Your task to perform on an android device: change your default location settings in chrome Image 0: 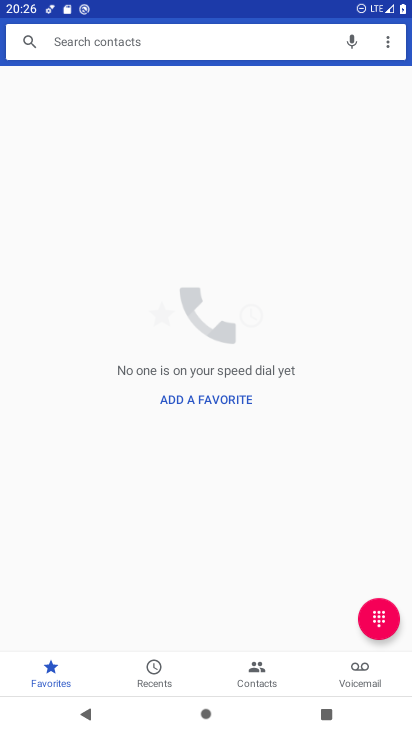
Step 0: press home button
Your task to perform on an android device: change your default location settings in chrome Image 1: 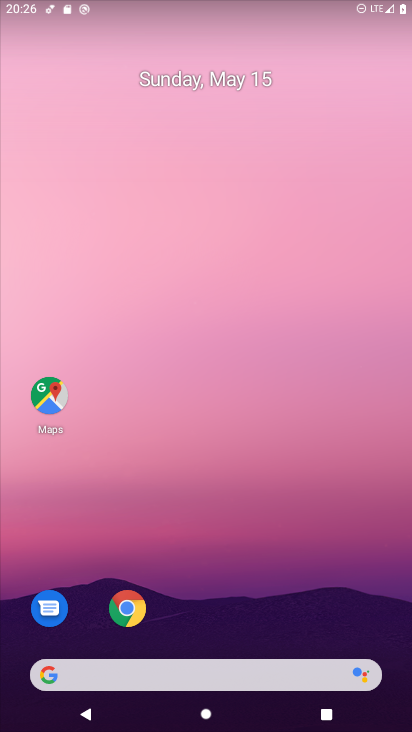
Step 1: click (134, 606)
Your task to perform on an android device: change your default location settings in chrome Image 2: 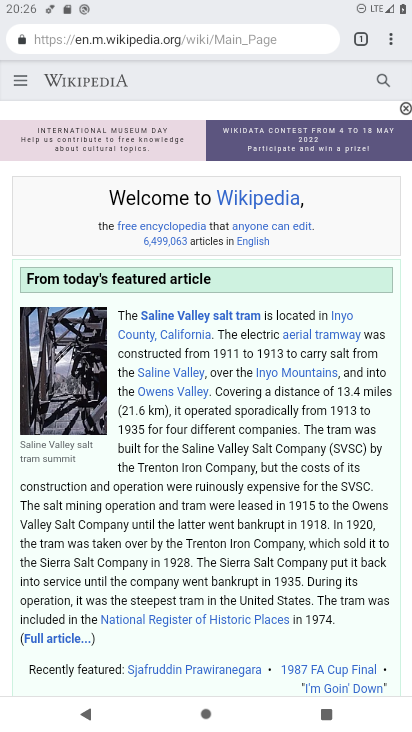
Step 2: click (383, 43)
Your task to perform on an android device: change your default location settings in chrome Image 3: 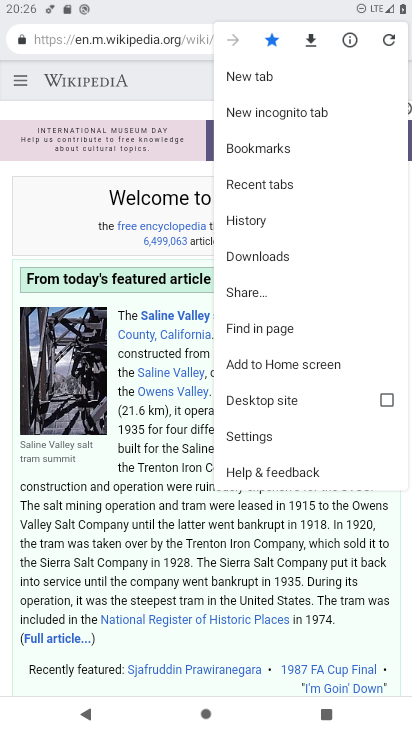
Step 3: click (264, 435)
Your task to perform on an android device: change your default location settings in chrome Image 4: 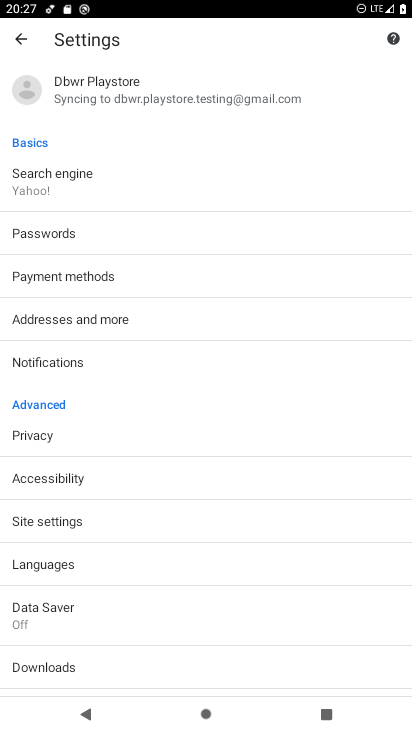
Step 4: click (95, 196)
Your task to perform on an android device: change your default location settings in chrome Image 5: 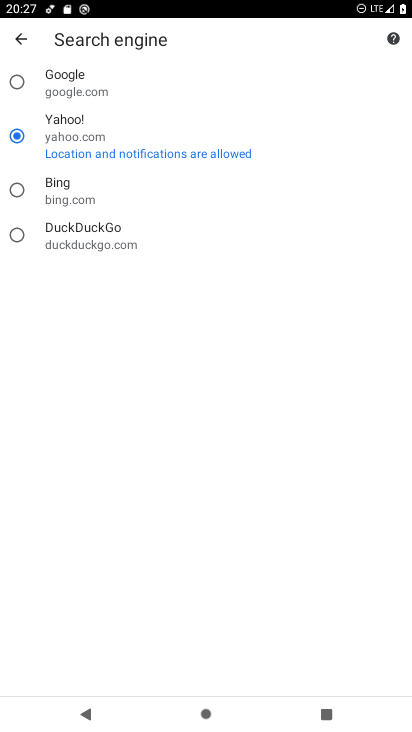
Step 5: click (12, 87)
Your task to perform on an android device: change your default location settings in chrome Image 6: 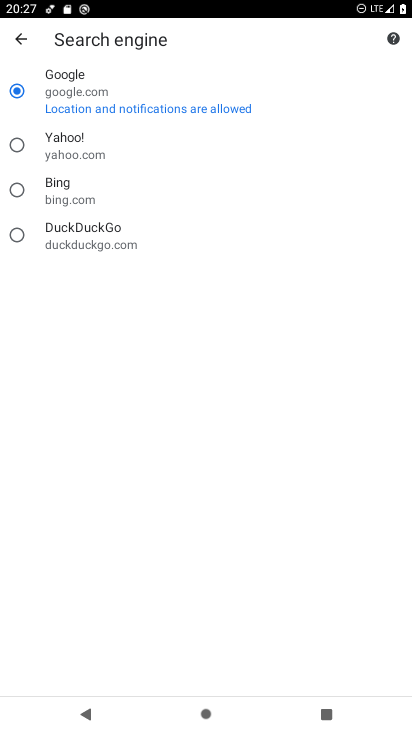
Step 6: task complete